Your task to perform on an android device: find snoozed emails in the gmail app Image 0: 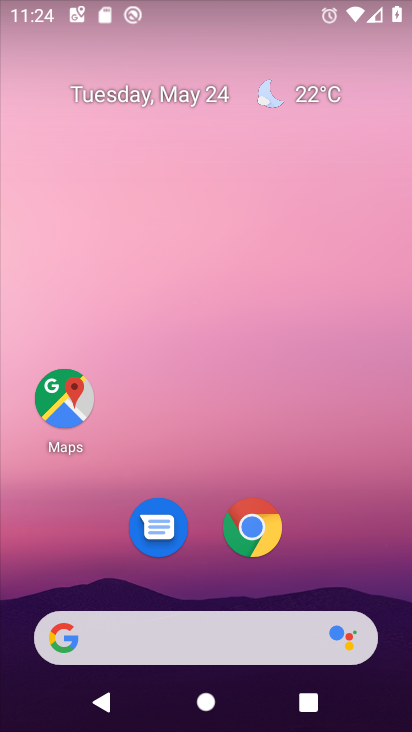
Step 0: press home button
Your task to perform on an android device: find snoozed emails in the gmail app Image 1: 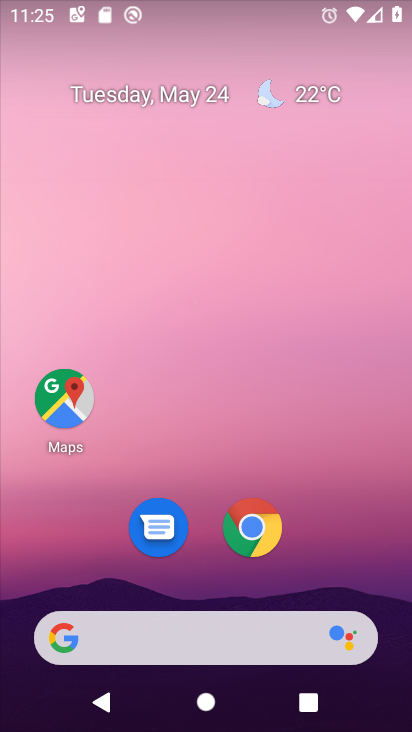
Step 1: drag from (213, 621) to (355, 67)
Your task to perform on an android device: find snoozed emails in the gmail app Image 2: 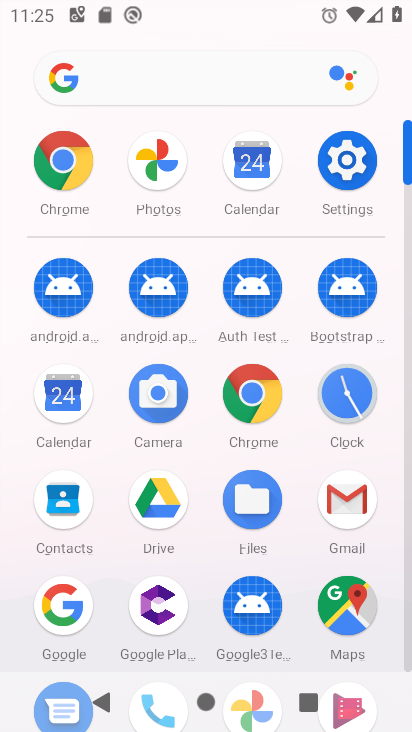
Step 2: drag from (245, 640) to (339, 57)
Your task to perform on an android device: find snoozed emails in the gmail app Image 3: 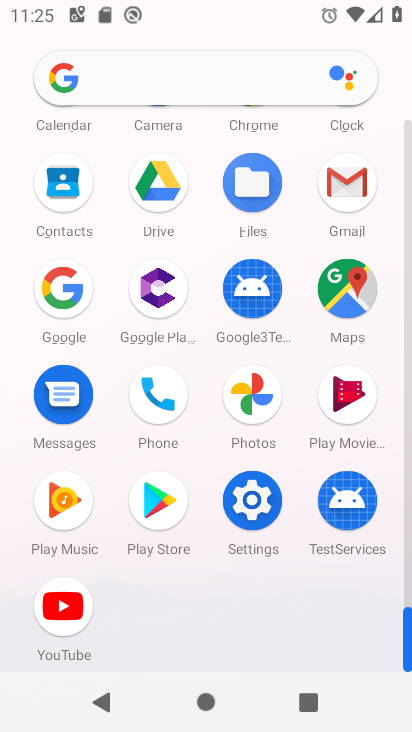
Step 3: click (343, 183)
Your task to perform on an android device: find snoozed emails in the gmail app Image 4: 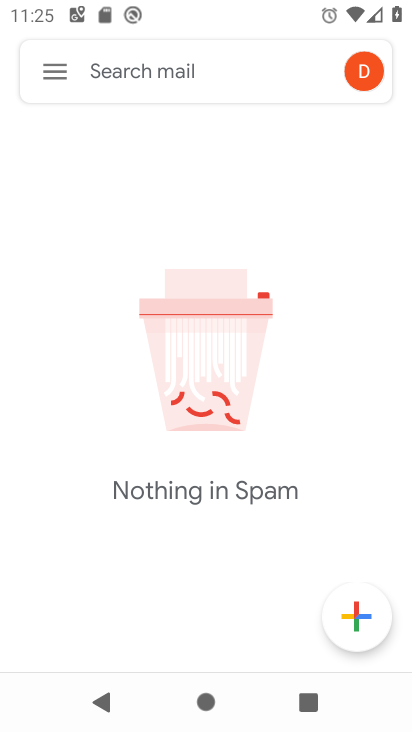
Step 4: click (58, 68)
Your task to perform on an android device: find snoozed emails in the gmail app Image 5: 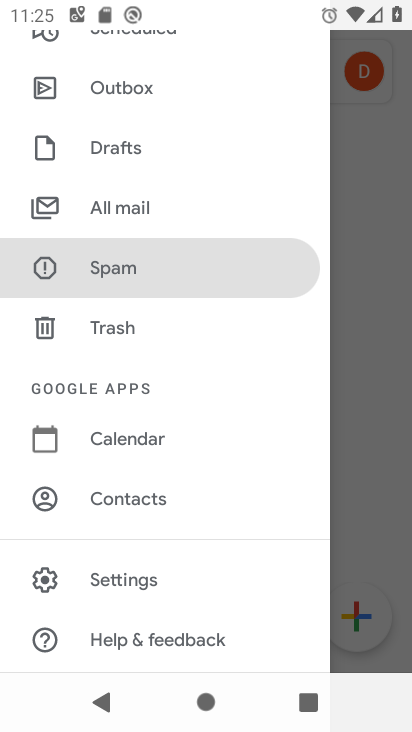
Step 5: drag from (208, 129) to (168, 535)
Your task to perform on an android device: find snoozed emails in the gmail app Image 6: 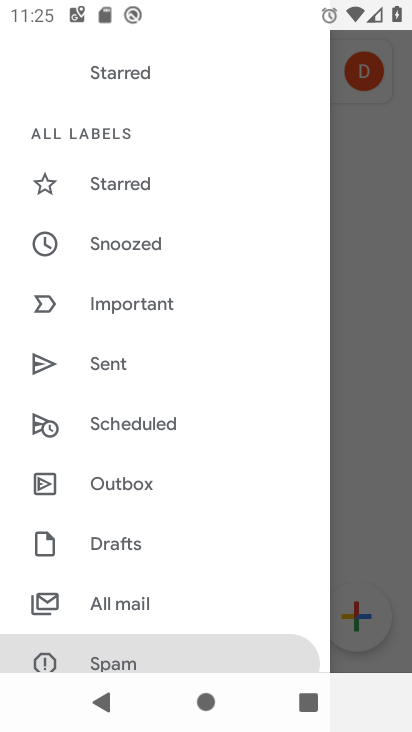
Step 6: click (119, 248)
Your task to perform on an android device: find snoozed emails in the gmail app Image 7: 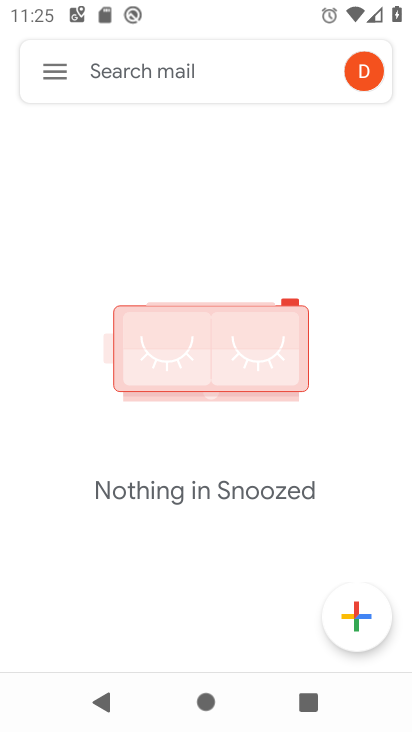
Step 7: task complete